Your task to perform on an android device: Open location settings Image 0: 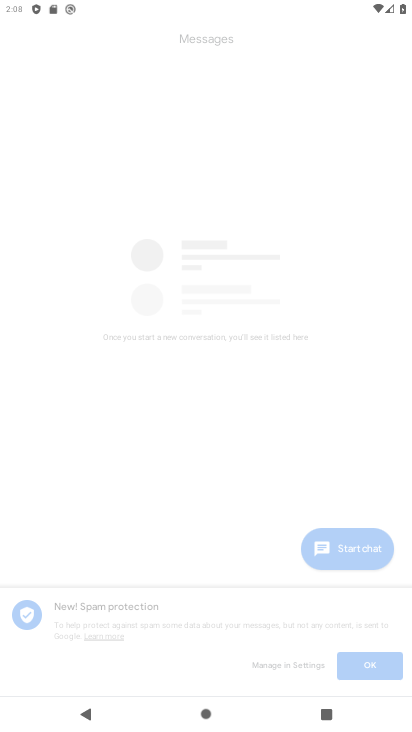
Step 0: drag from (354, 604) to (356, 175)
Your task to perform on an android device: Open location settings Image 1: 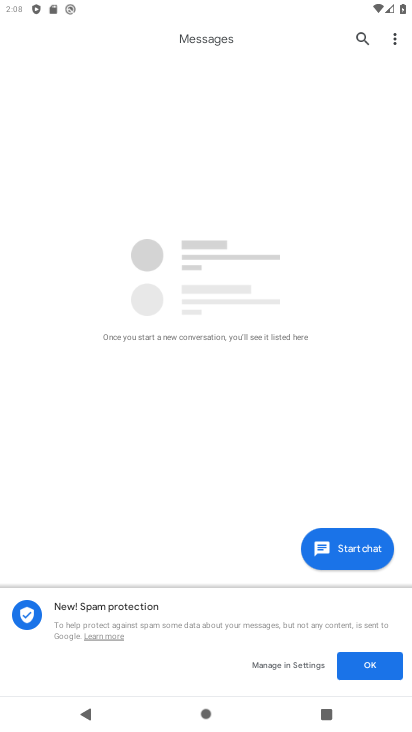
Step 1: press home button
Your task to perform on an android device: Open location settings Image 2: 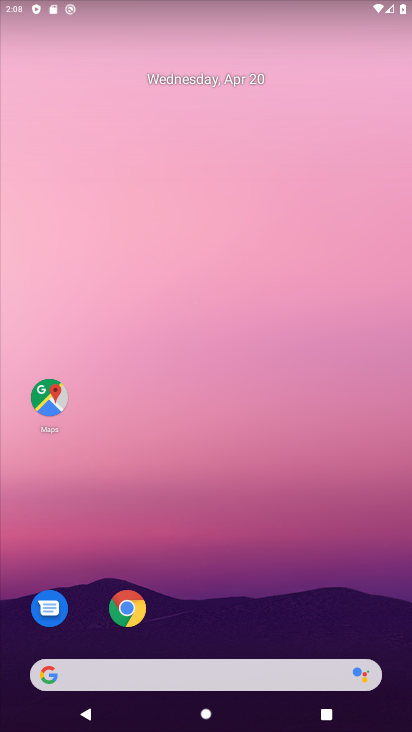
Step 2: drag from (359, 587) to (296, 189)
Your task to perform on an android device: Open location settings Image 3: 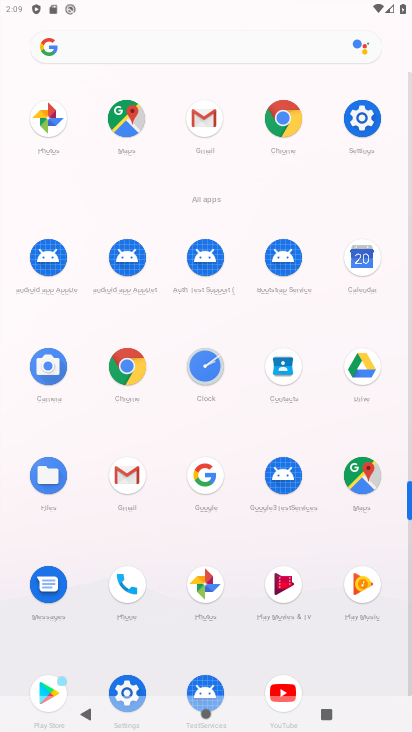
Step 3: click (365, 128)
Your task to perform on an android device: Open location settings Image 4: 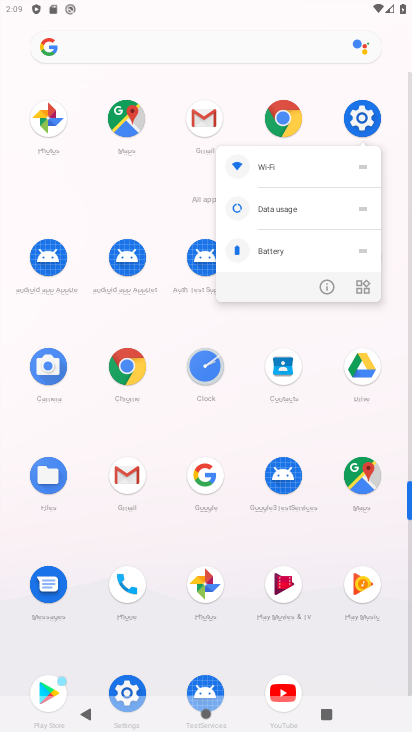
Step 4: click (365, 128)
Your task to perform on an android device: Open location settings Image 5: 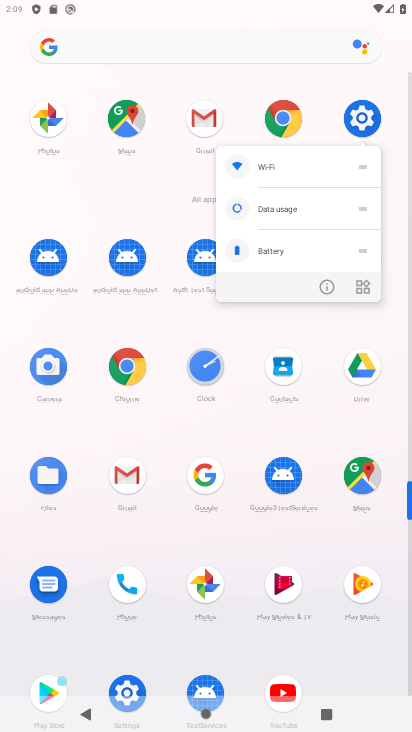
Step 5: click (365, 121)
Your task to perform on an android device: Open location settings Image 6: 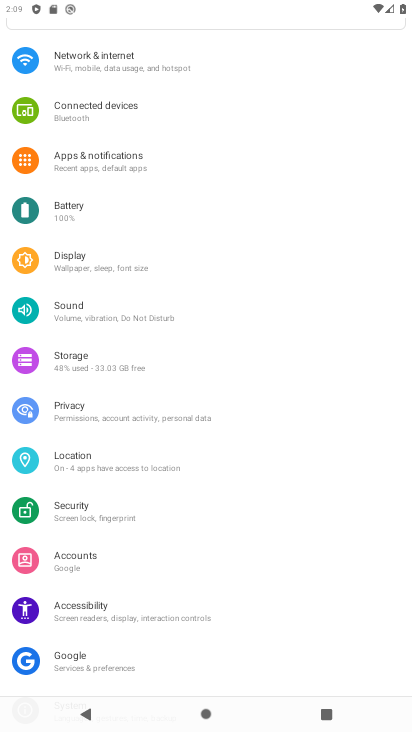
Step 6: click (88, 463)
Your task to perform on an android device: Open location settings Image 7: 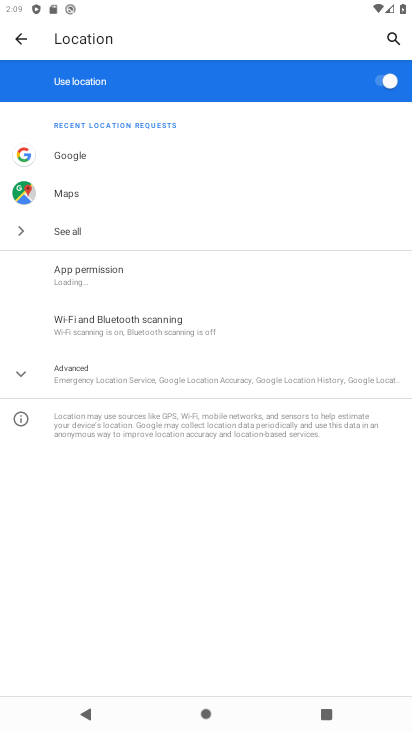
Step 7: click (140, 372)
Your task to perform on an android device: Open location settings Image 8: 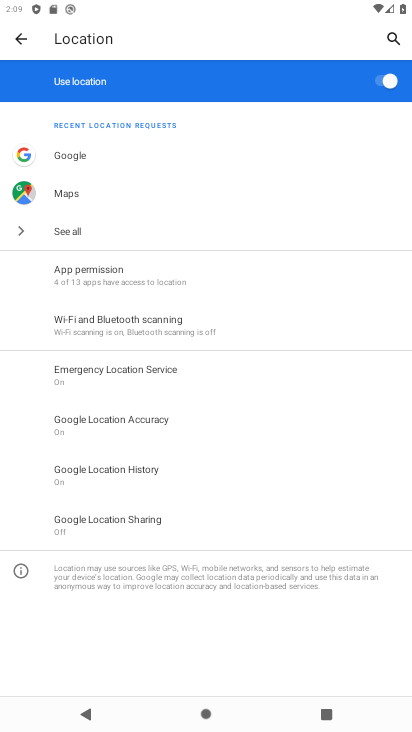
Step 8: task complete